Your task to perform on an android device: Clear the shopping cart on ebay. Search for apple airpods pro on ebay, select the first entry, and add it to the cart. Image 0: 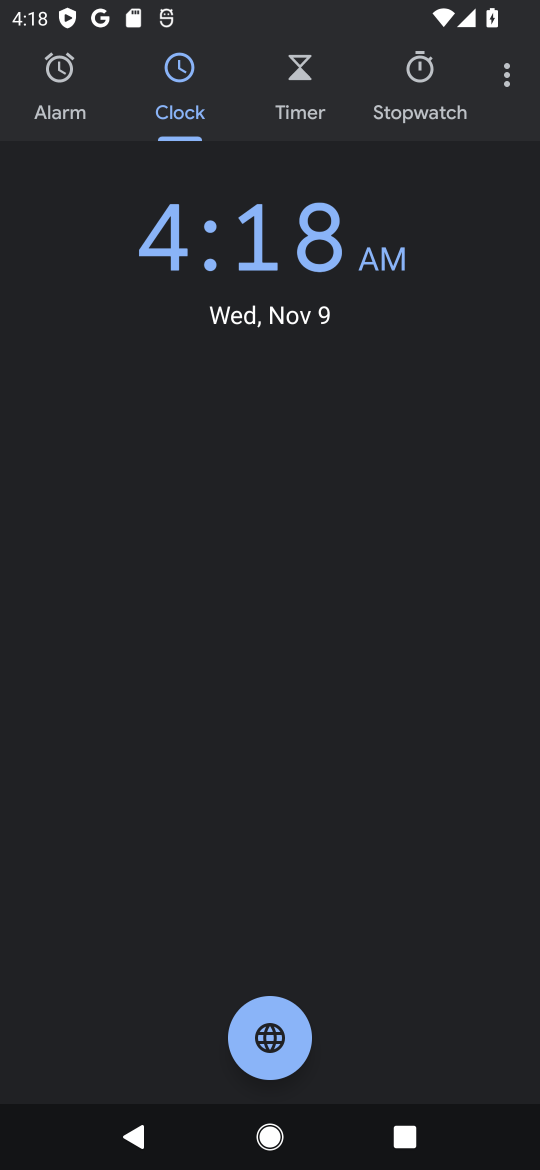
Step 0: press home button
Your task to perform on an android device: Clear the shopping cart on ebay. Search for apple airpods pro on ebay, select the first entry, and add it to the cart. Image 1: 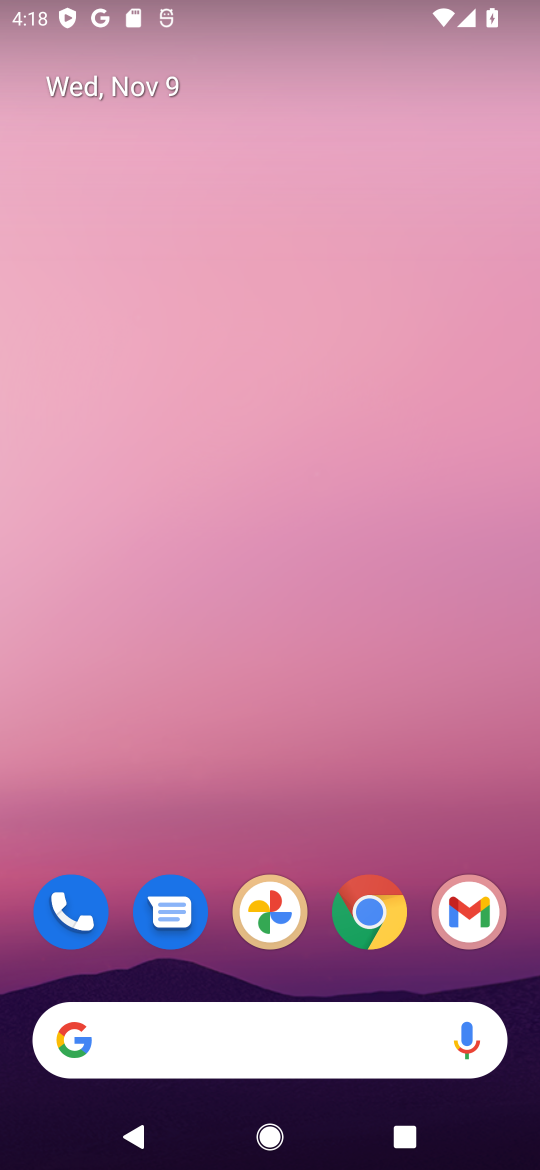
Step 1: click (367, 911)
Your task to perform on an android device: Clear the shopping cart on ebay. Search for apple airpods pro on ebay, select the first entry, and add it to the cart. Image 2: 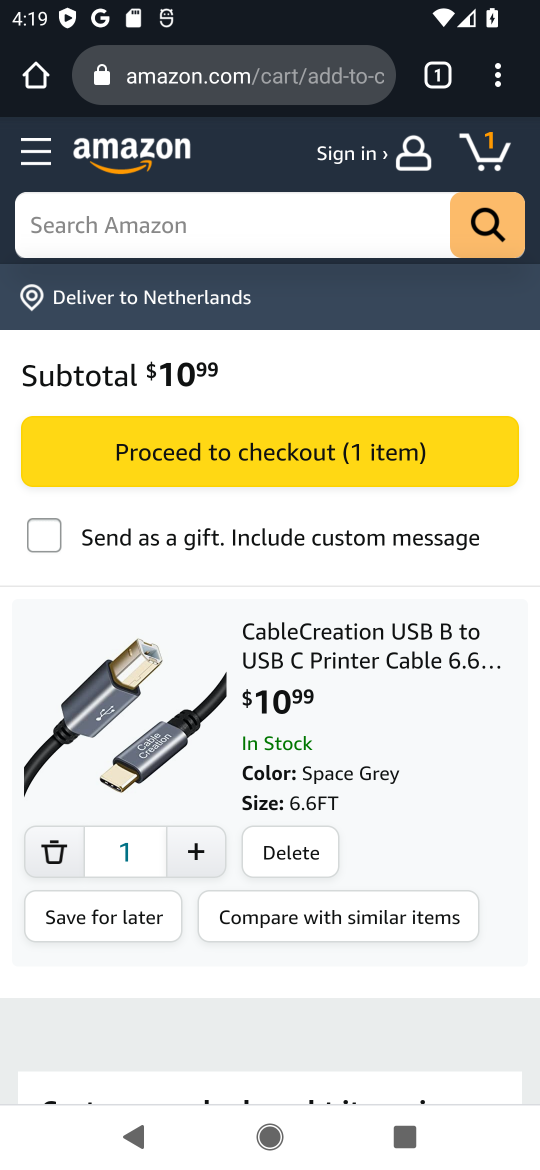
Step 2: press home button
Your task to perform on an android device: Clear the shopping cart on ebay. Search for apple airpods pro on ebay, select the first entry, and add it to the cart. Image 3: 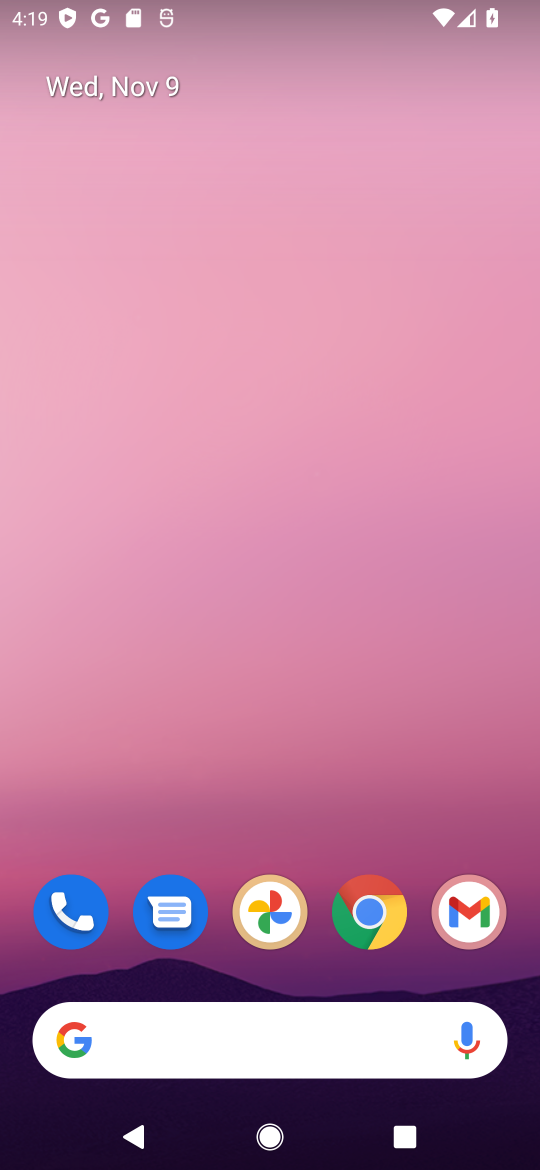
Step 3: click (370, 925)
Your task to perform on an android device: Clear the shopping cart on ebay. Search for apple airpods pro on ebay, select the first entry, and add it to the cart. Image 4: 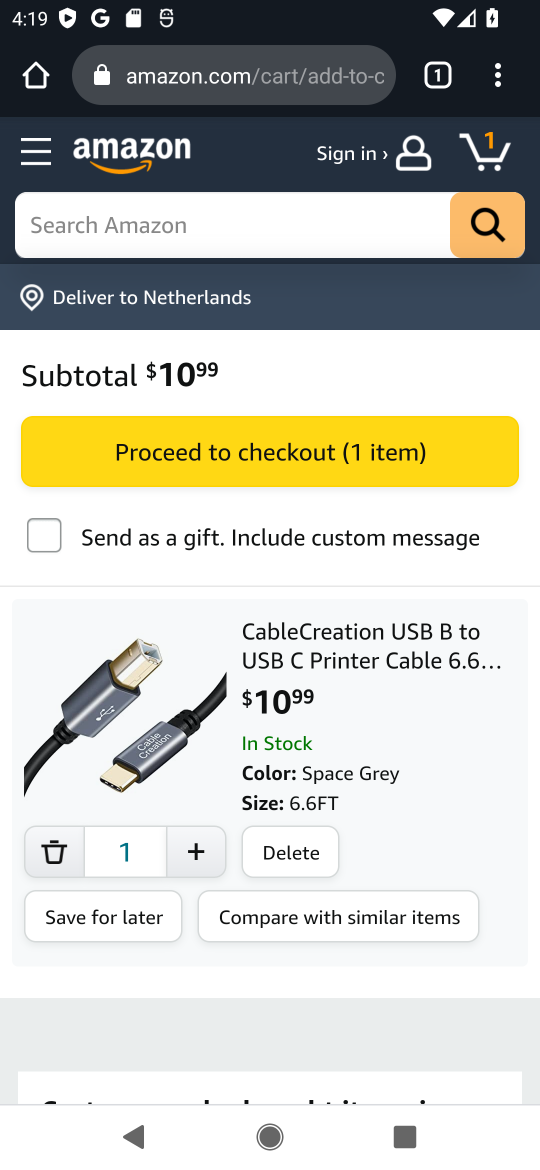
Step 4: click (262, 74)
Your task to perform on an android device: Clear the shopping cart on ebay. Search for apple airpods pro on ebay, select the first entry, and add it to the cart. Image 5: 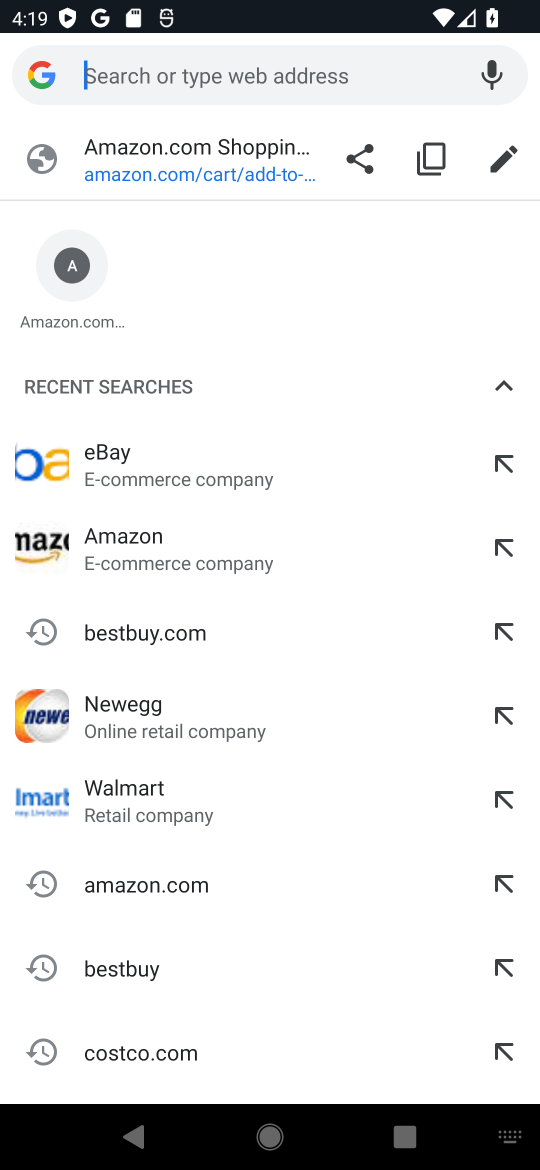
Step 5: type "ebay"
Your task to perform on an android device: Clear the shopping cart on ebay. Search for apple airpods pro on ebay, select the first entry, and add it to the cart. Image 6: 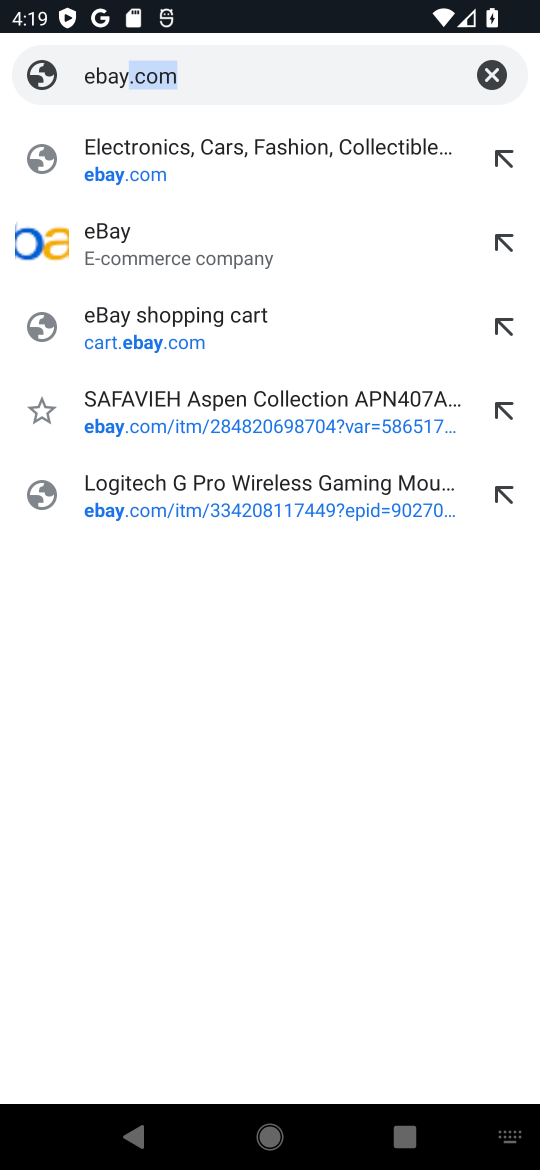
Step 6: click (129, 245)
Your task to perform on an android device: Clear the shopping cart on ebay. Search for apple airpods pro on ebay, select the first entry, and add it to the cart. Image 7: 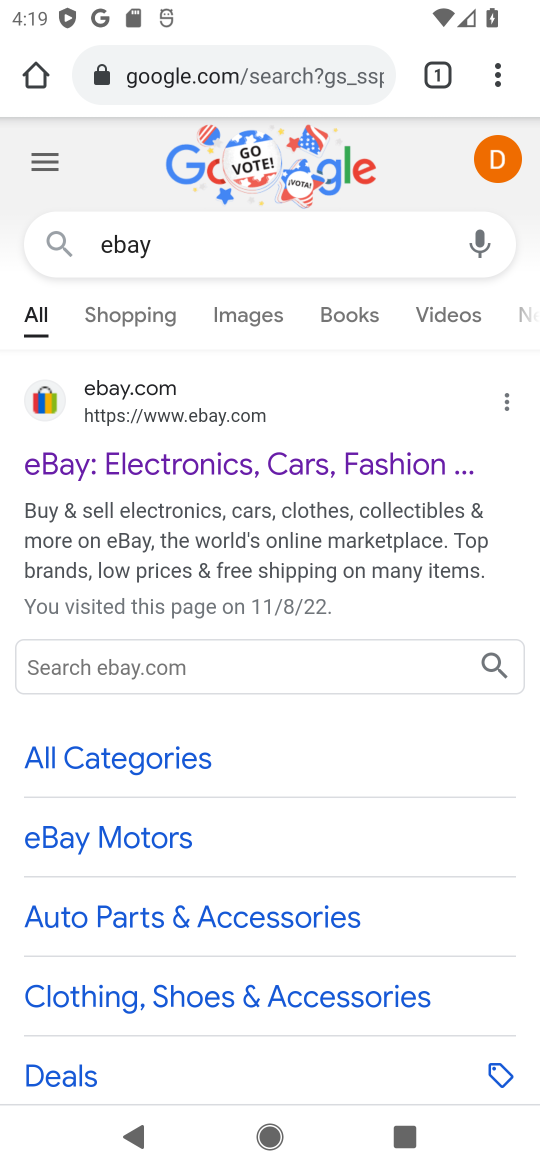
Step 7: click (274, 475)
Your task to perform on an android device: Clear the shopping cart on ebay. Search for apple airpods pro on ebay, select the first entry, and add it to the cart. Image 8: 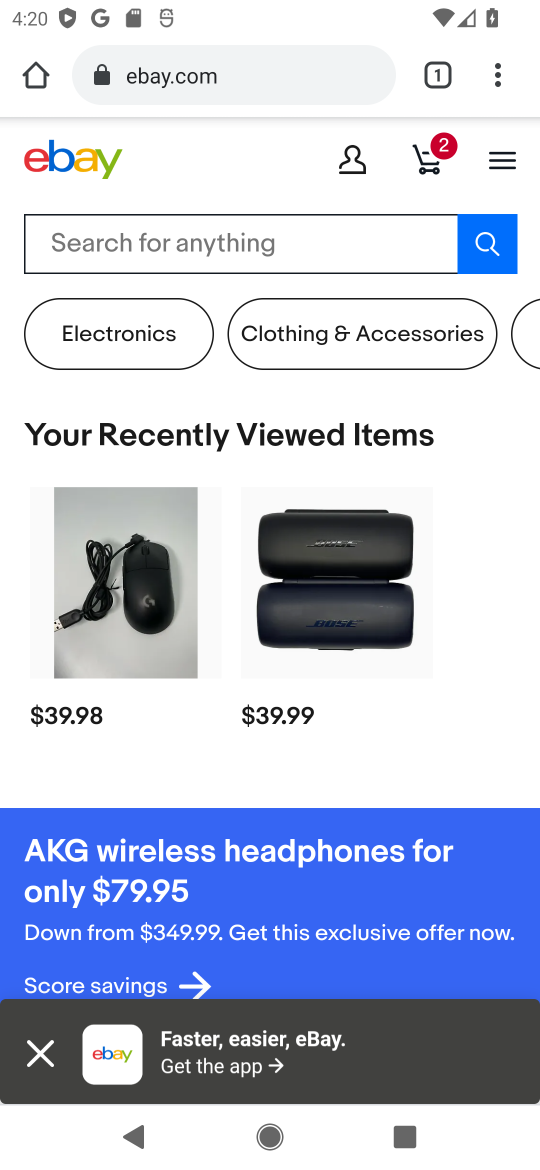
Step 8: click (435, 153)
Your task to perform on an android device: Clear the shopping cart on ebay. Search for apple airpods pro on ebay, select the first entry, and add it to the cart. Image 9: 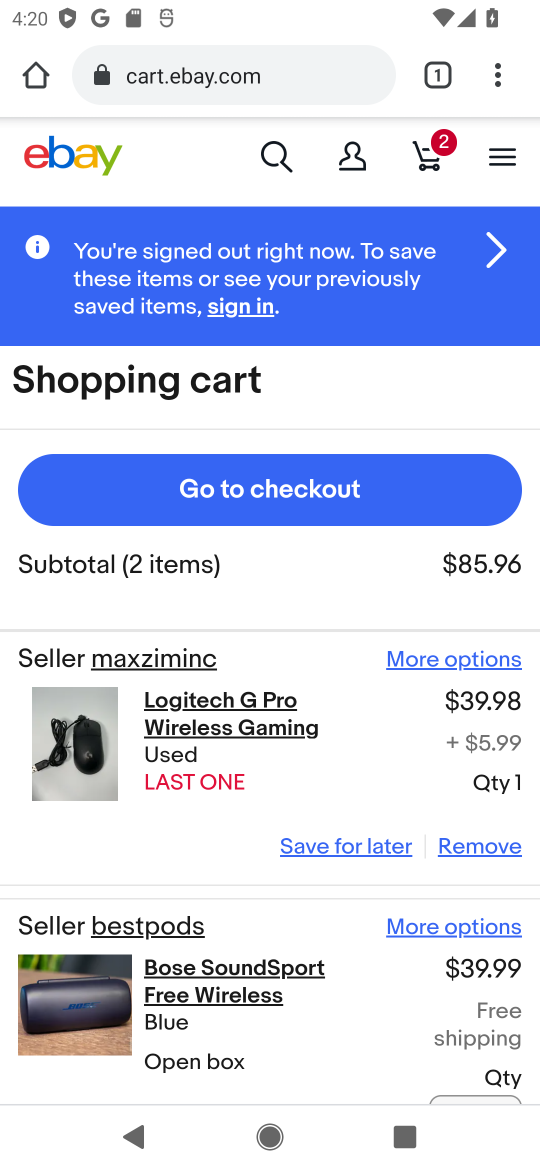
Step 9: click (460, 846)
Your task to perform on an android device: Clear the shopping cart on ebay. Search for apple airpods pro on ebay, select the first entry, and add it to the cart. Image 10: 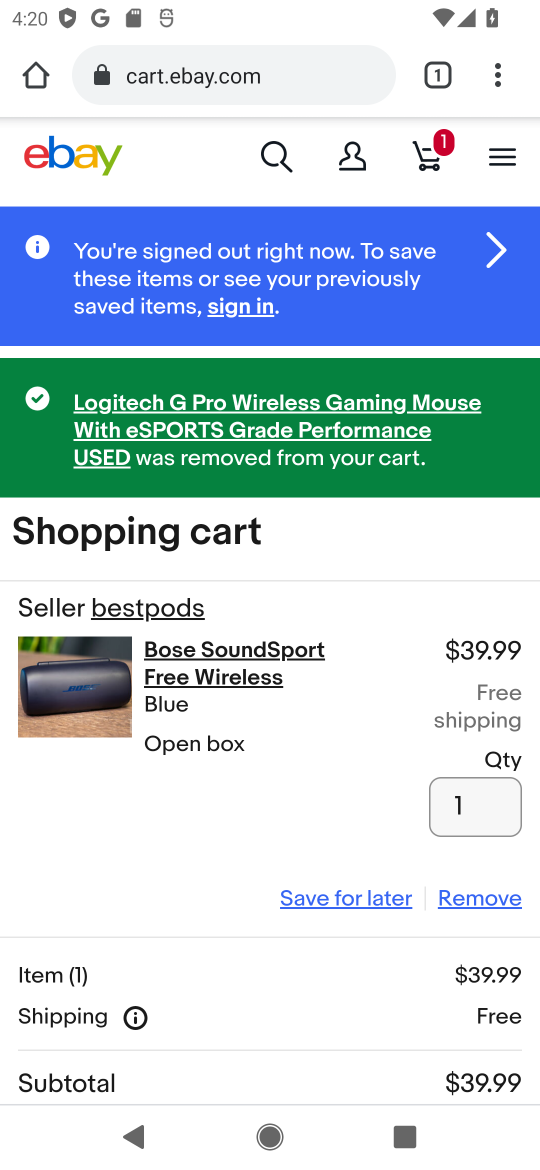
Step 10: click (482, 899)
Your task to perform on an android device: Clear the shopping cart on ebay. Search for apple airpods pro on ebay, select the first entry, and add it to the cart. Image 11: 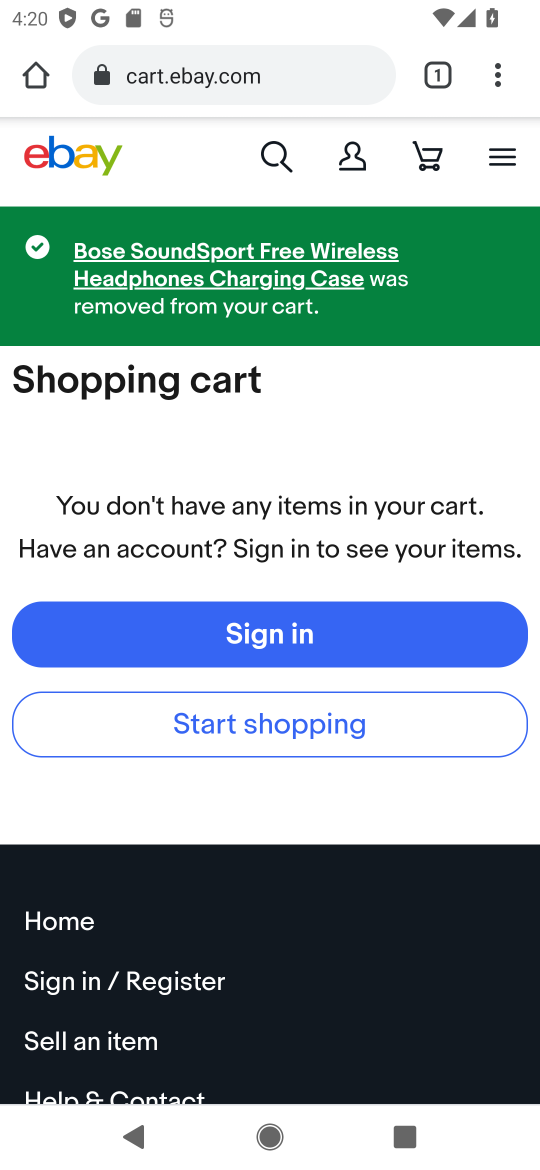
Step 11: click (281, 153)
Your task to perform on an android device: Clear the shopping cart on ebay. Search for apple airpods pro on ebay, select the first entry, and add it to the cart. Image 12: 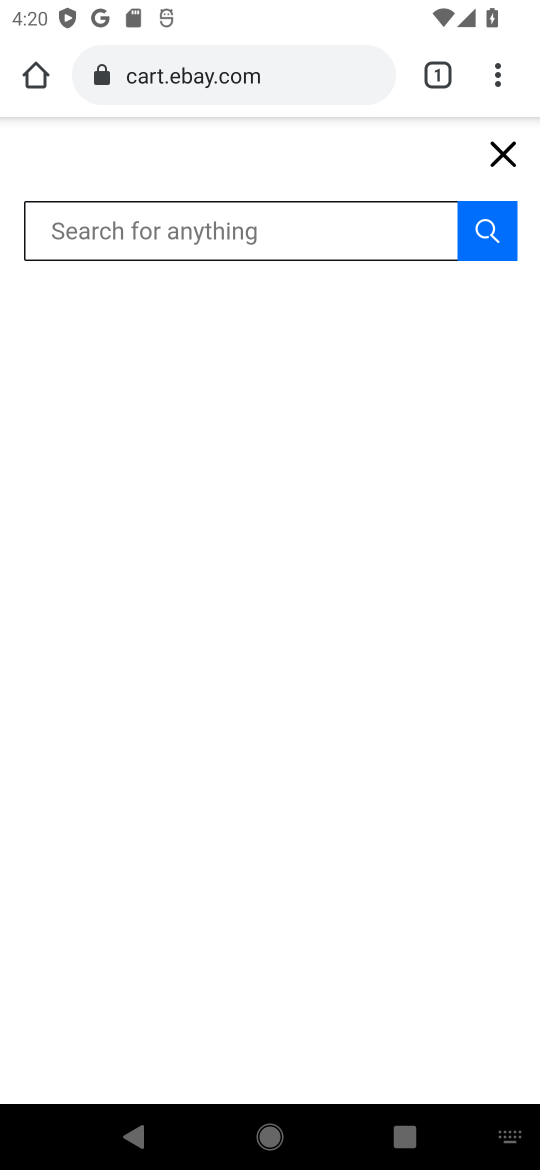
Step 12: type "apple airpods pro"
Your task to perform on an android device: Clear the shopping cart on ebay. Search for apple airpods pro on ebay, select the first entry, and add it to the cart. Image 13: 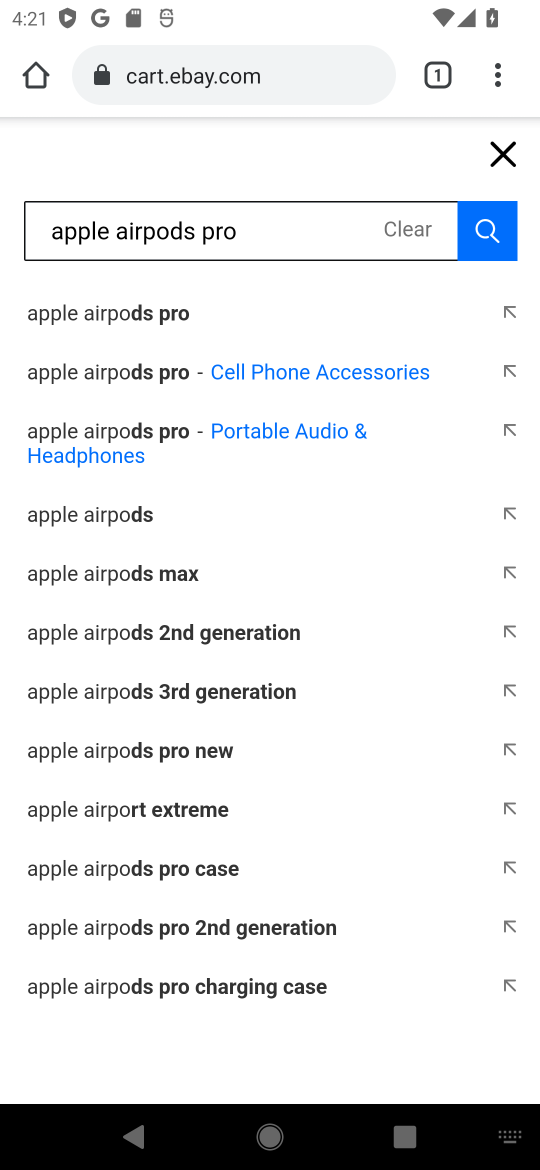
Step 13: click (136, 322)
Your task to perform on an android device: Clear the shopping cart on ebay. Search for apple airpods pro on ebay, select the first entry, and add it to the cart. Image 14: 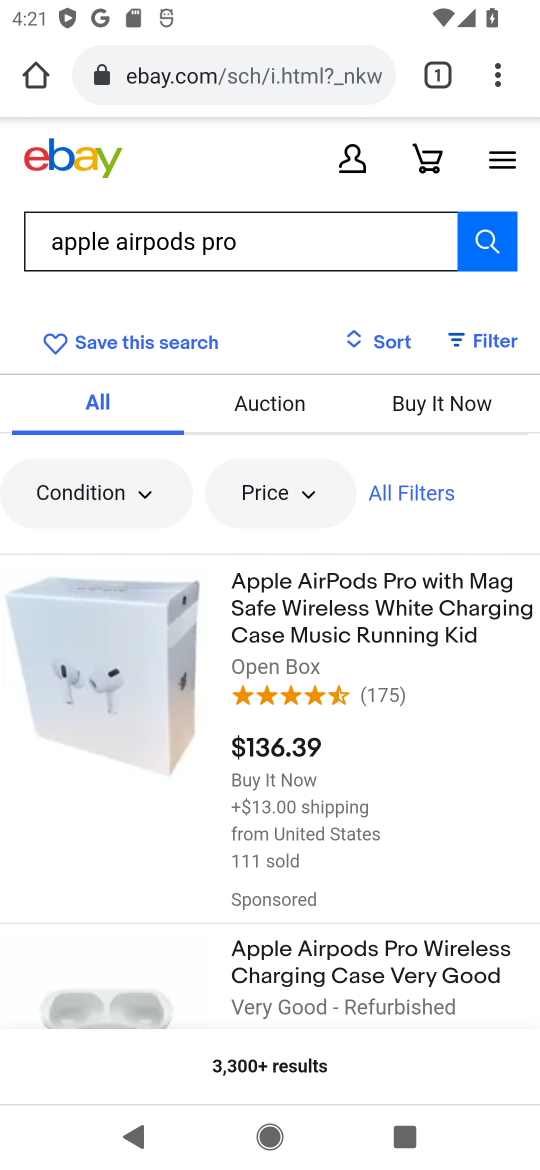
Step 14: click (404, 624)
Your task to perform on an android device: Clear the shopping cart on ebay. Search for apple airpods pro on ebay, select the first entry, and add it to the cart. Image 15: 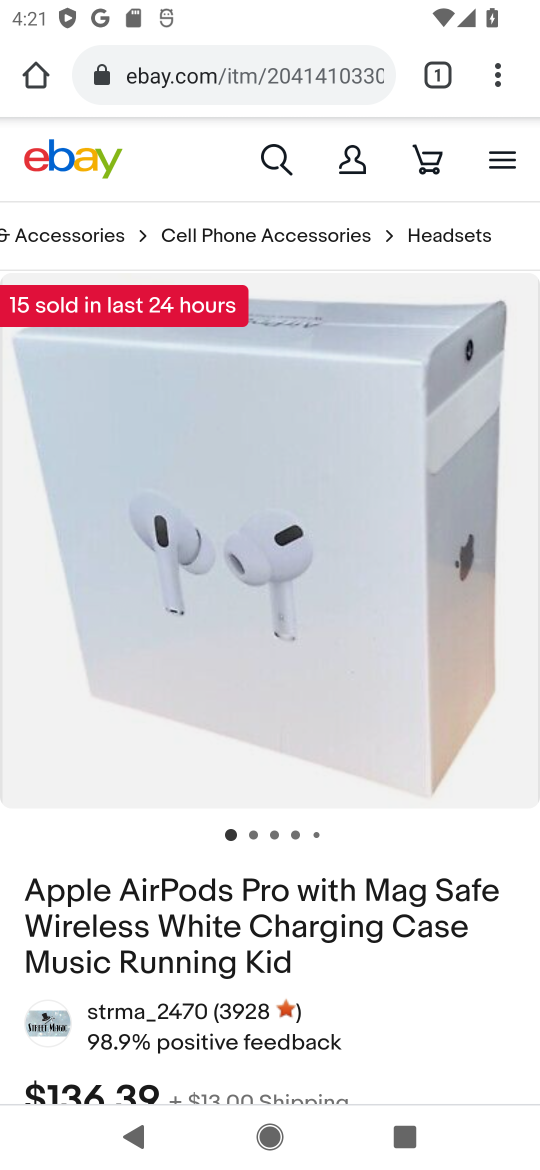
Step 15: drag from (391, 980) to (368, 403)
Your task to perform on an android device: Clear the shopping cart on ebay. Search for apple airpods pro on ebay, select the first entry, and add it to the cart. Image 16: 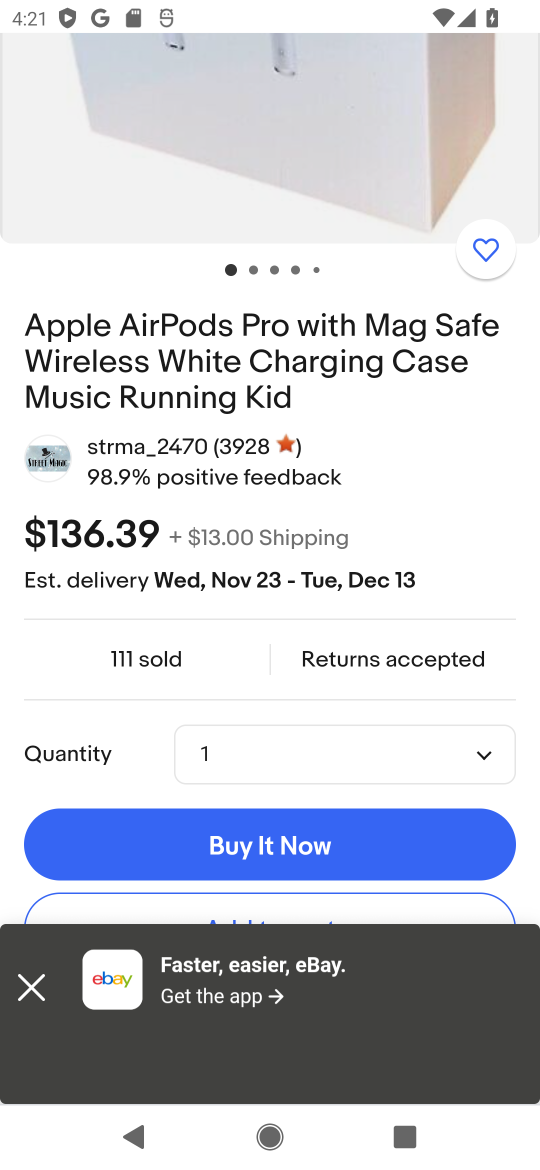
Step 16: drag from (307, 745) to (308, 573)
Your task to perform on an android device: Clear the shopping cart on ebay. Search for apple airpods pro on ebay, select the first entry, and add it to the cart. Image 17: 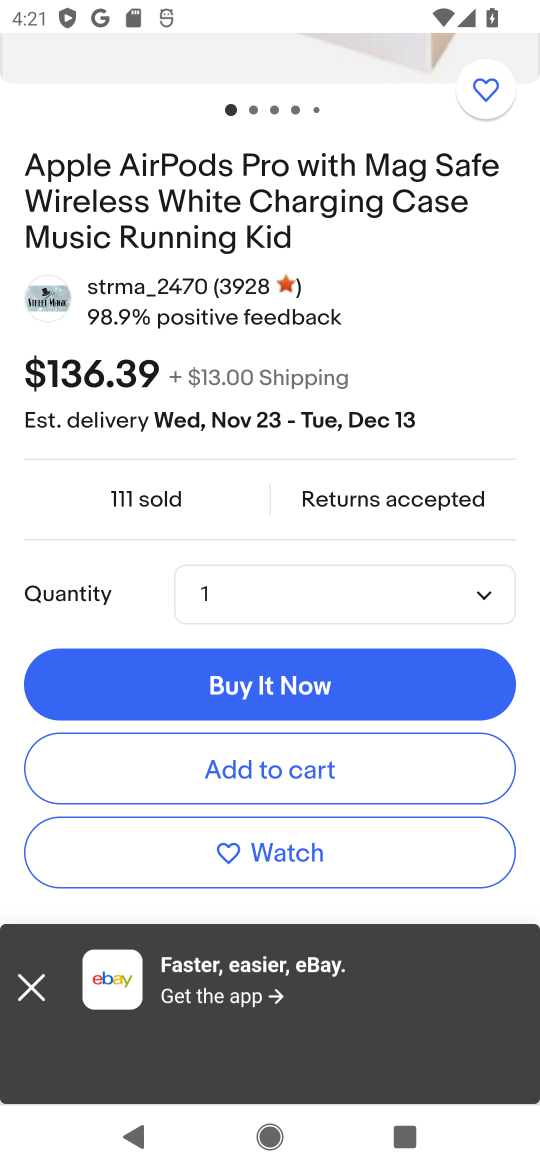
Step 17: click (289, 781)
Your task to perform on an android device: Clear the shopping cart on ebay. Search for apple airpods pro on ebay, select the first entry, and add it to the cart. Image 18: 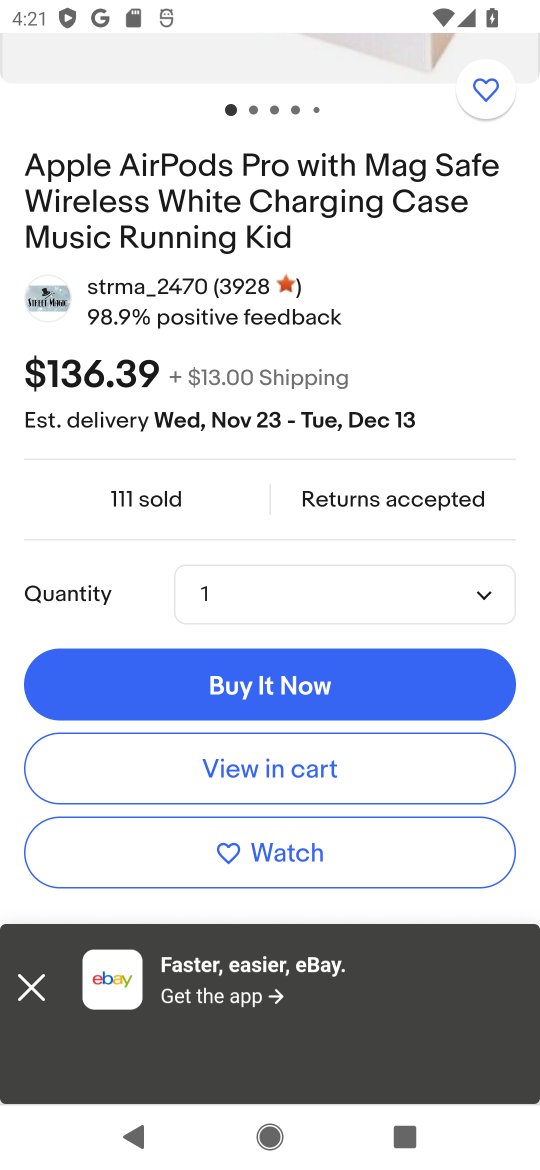
Step 18: click (289, 781)
Your task to perform on an android device: Clear the shopping cart on ebay. Search for apple airpods pro on ebay, select the first entry, and add it to the cart. Image 19: 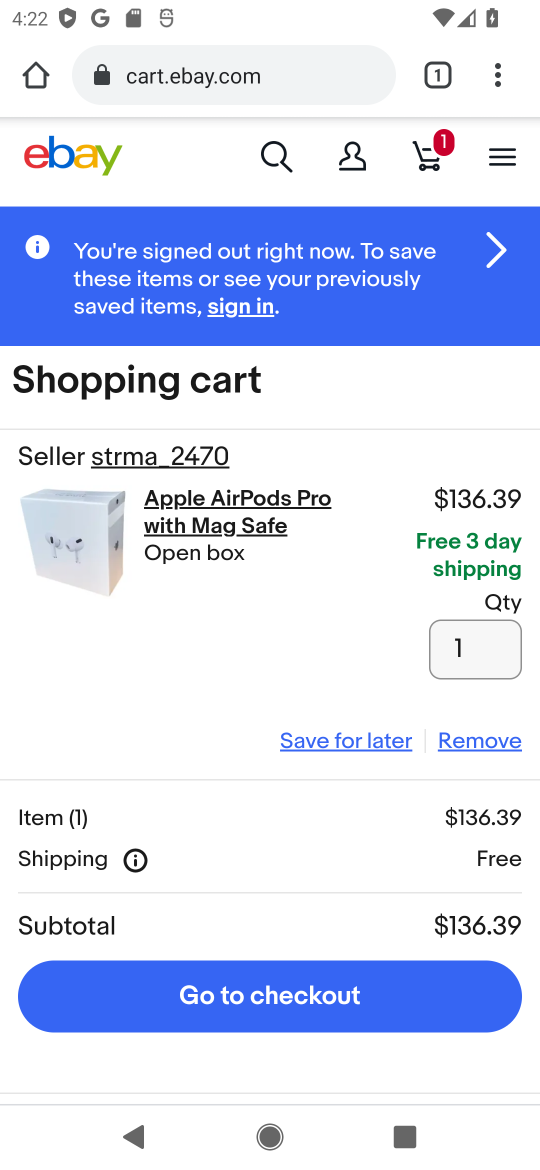
Step 19: task complete